Your task to perform on an android device: set default search engine in the chrome app Image 0: 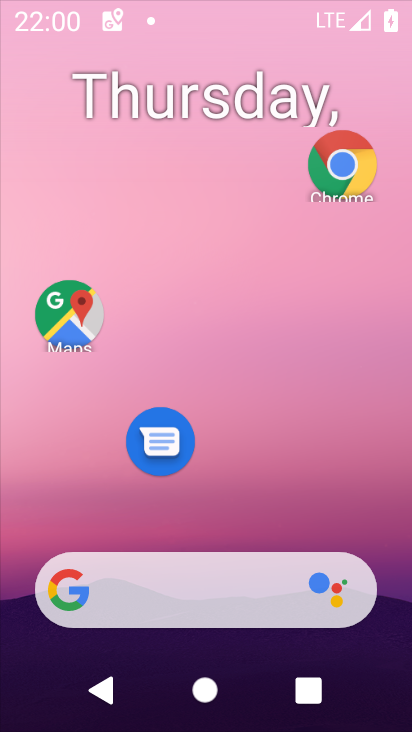
Step 0: click (208, 134)
Your task to perform on an android device: set default search engine in the chrome app Image 1: 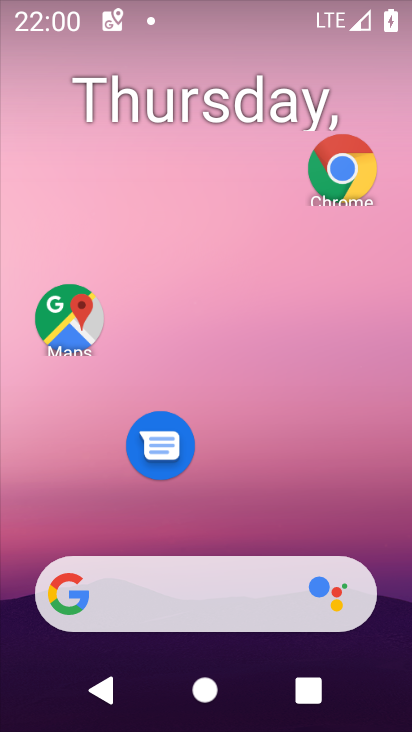
Step 1: click (333, 168)
Your task to perform on an android device: set default search engine in the chrome app Image 2: 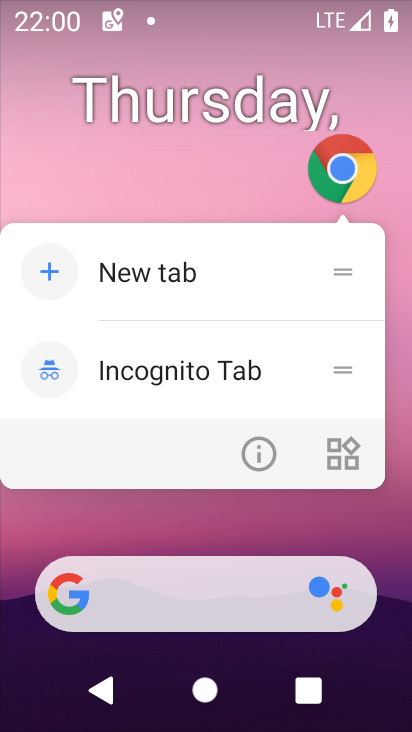
Step 2: click (249, 454)
Your task to perform on an android device: set default search engine in the chrome app Image 3: 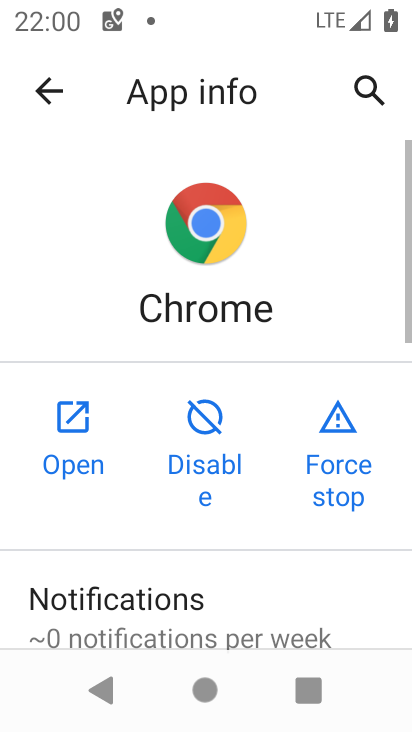
Step 3: click (75, 438)
Your task to perform on an android device: set default search engine in the chrome app Image 4: 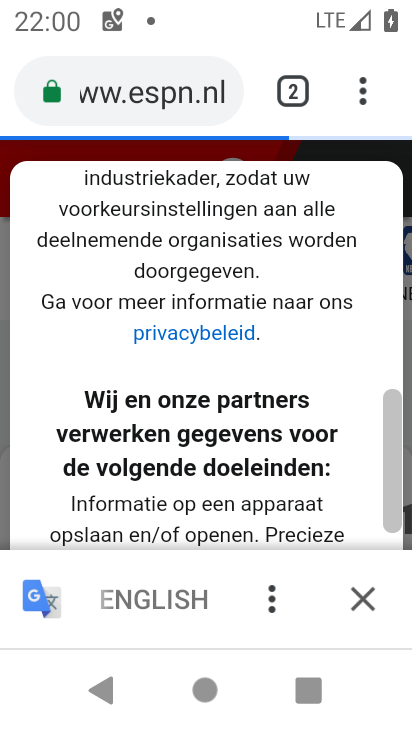
Step 4: drag from (238, 503) to (253, 233)
Your task to perform on an android device: set default search engine in the chrome app Image 5: 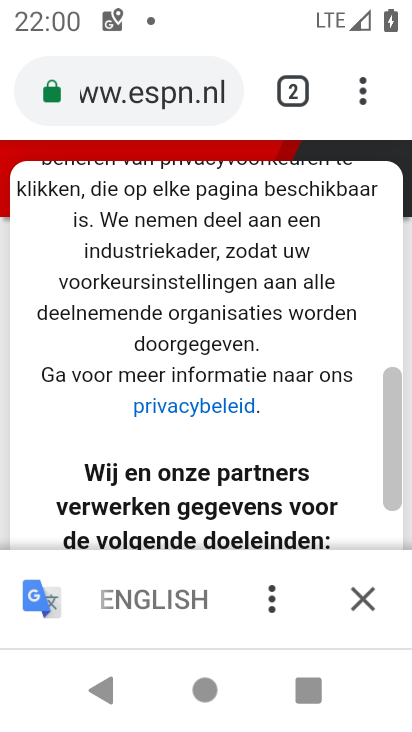
Step 5: click (363, 103)
Your task to perform on an android device: set default search engine in the chrome app Image 6: 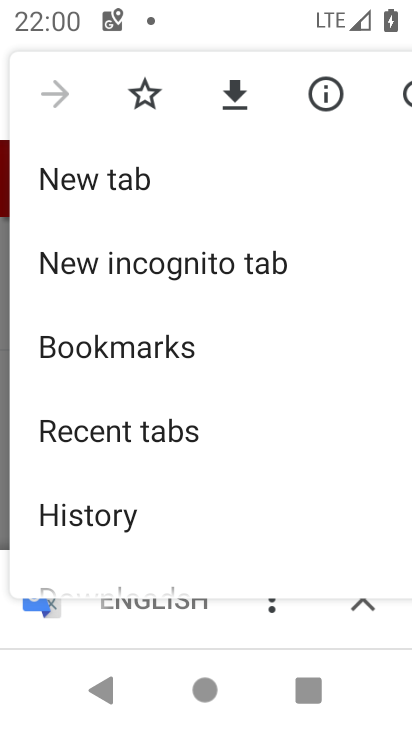
Step 6: drag from (248, 535) to (255, 243)
Your task to perform on an android device: set default search engine in the chrome app Image 7: 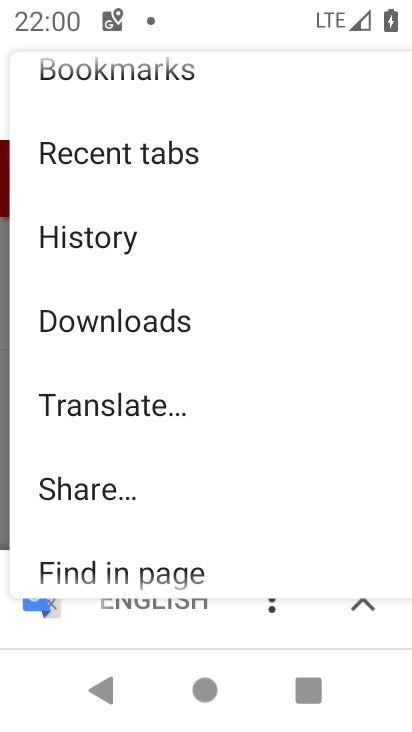
Step 7: drag from (138, 516) to (247, 143)
Your task to perform on an android device: set default search engine in the chrome app Image 8: 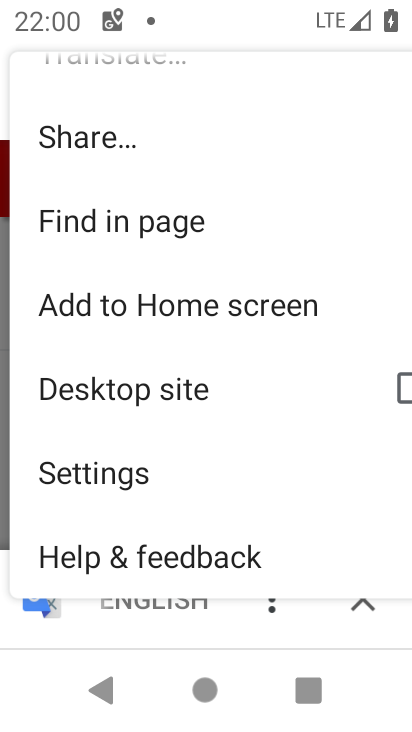
Step 8: click (113, 483)
Your task to perform on an android device: set default search engine in the chrome app Image 9: 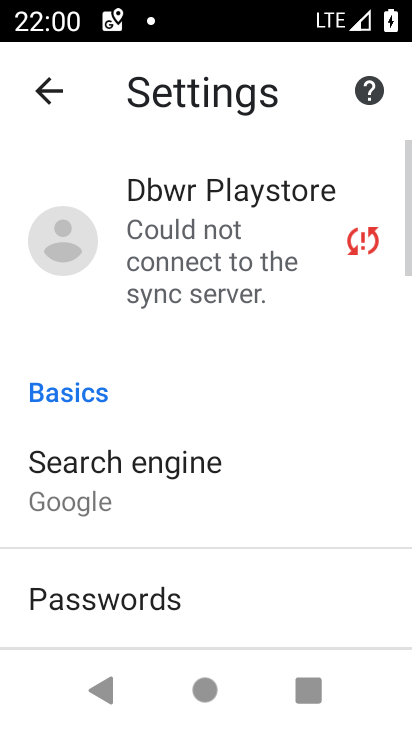
Step 9: click (152, 468)
Your task to perform on an android device: set default search engine in the chrome app Image 10: 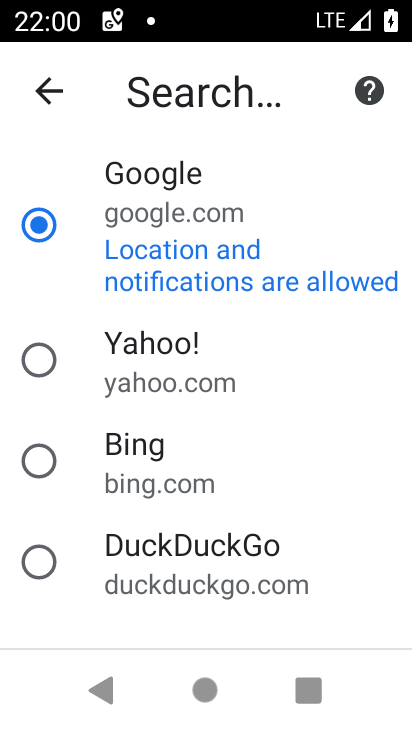
Step 10: drag from (203, 543) to (273, 199)
Your task to perform on an android device: set default search engine in the chrome app Image 11: 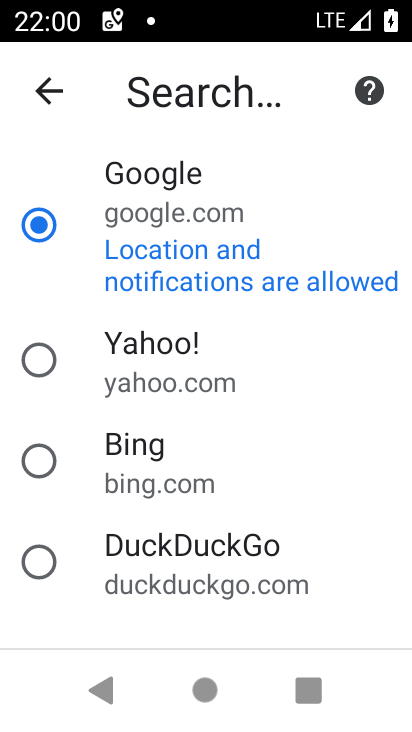
Step 11: drag from (216, 532) to (292, 236)
Your task to perform on an android device: set default search engine in the chrome app Image 12: 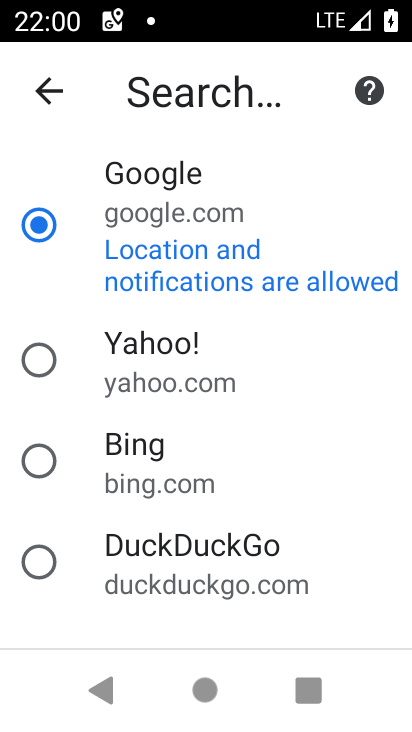
Step 12: drag from (191, 517) to (307, 213)
Your task to perform on an android device: set default search engine in the chrome app Image 13: 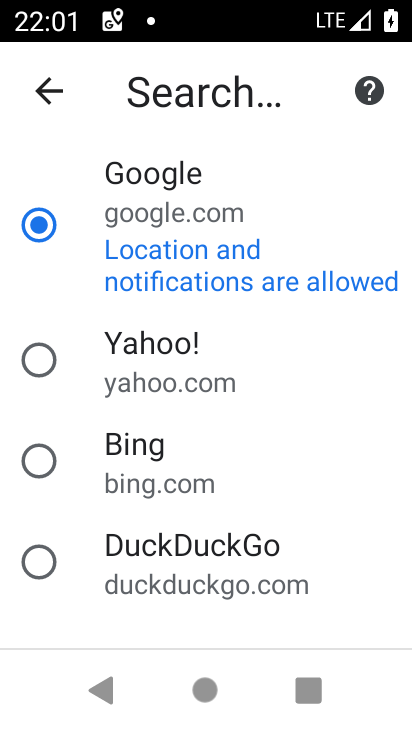
Step 13: drag from (160, 512) to (239, 389)
Your task to perform on an android device: set default search engine in the chrome app Image 14: 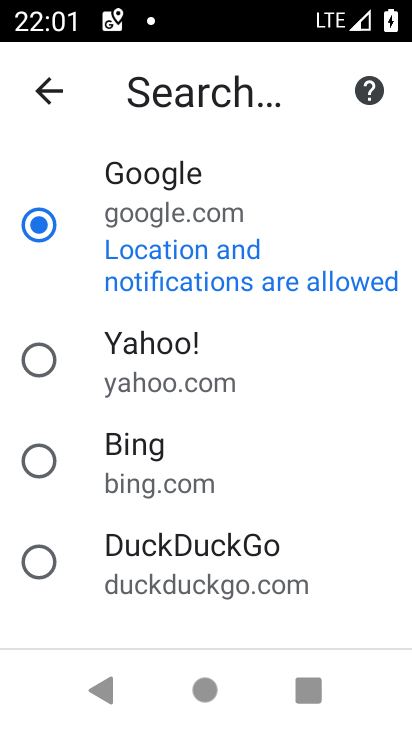
Step 14: drag from (176, 538) to (202, 462)
Your task to perform on an android device: set default search engine in the chrome app Image 15: 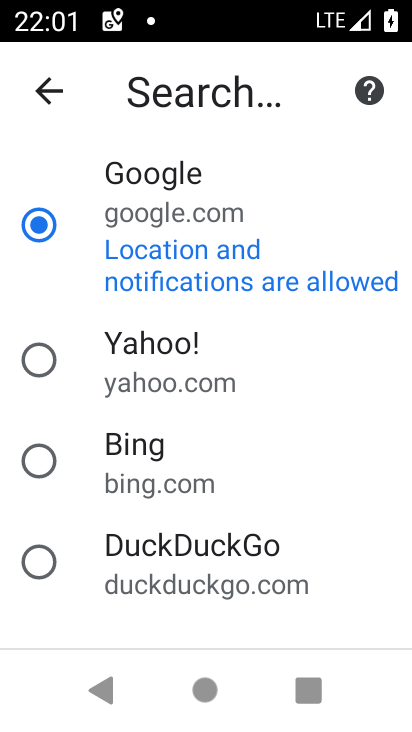
Step 15: drag from (201, 533) to (326, 209)
Your task to perform on an android device: set default search engine in the chrome app Image 16: 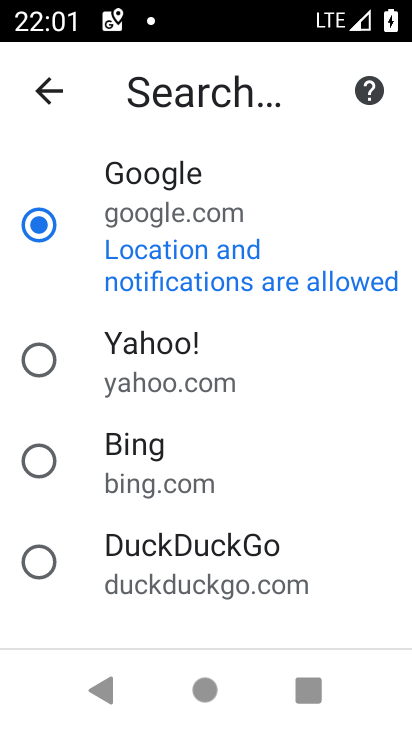
Step 16: drag from (189, 208) to (170, 494)
Your task to perform on an android device: set default search engine in the chrome app Image 17: 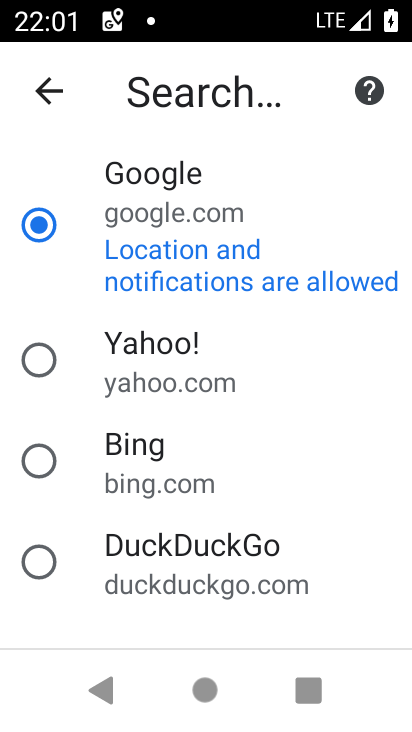
Step 17: drag from (176, 574) to (238, 262)
Your task to perform on an android device: set default search engine in the chrome app Image 18: 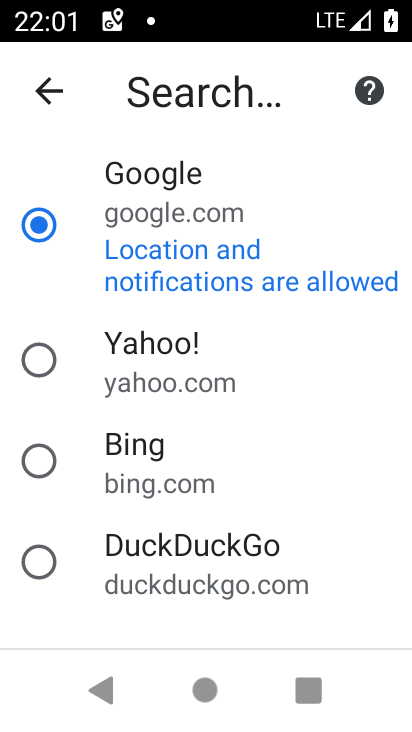
Step 18: click (90, 365)
Your task to perform on an android device: set default search engine in the chrome app Image 19: 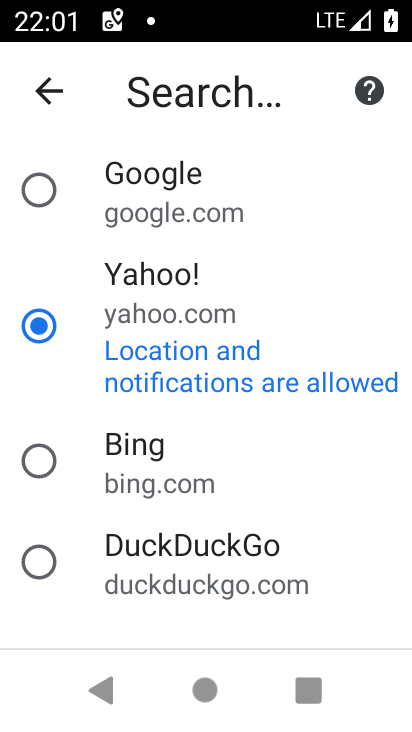
Step 19: task complete